Your task to perform on an android device: What's the weather today? Image 0: 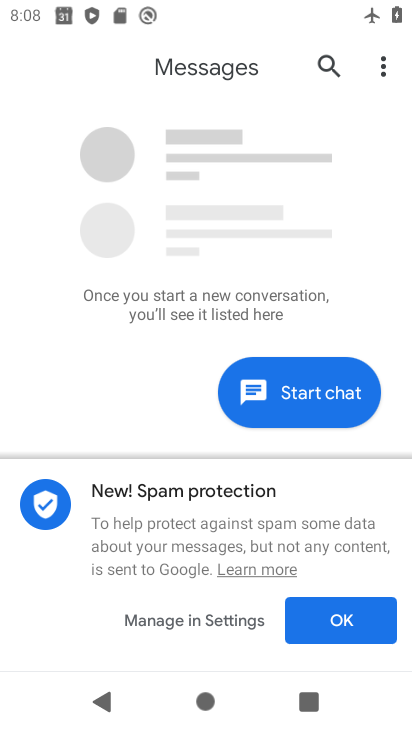
Step 0: press home button
Your task to perform on an android device: What's the weather today? Image 1: 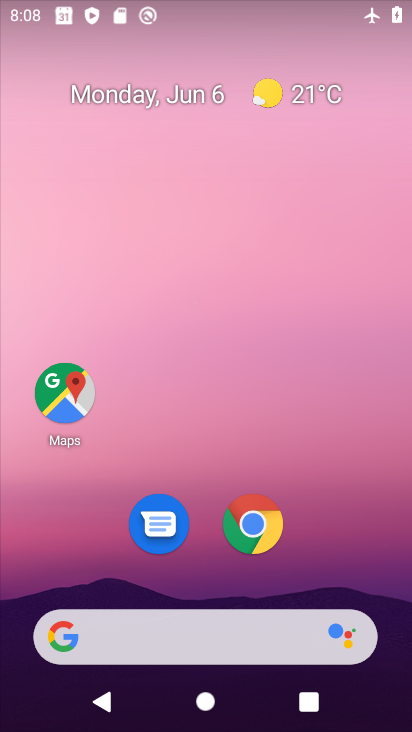
Step 1: click (266, 92)
Your task to perform on an android device: What's the weather today? Image 2: 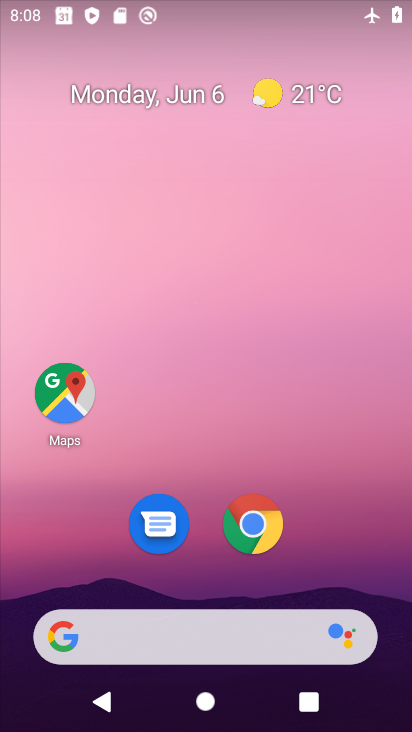
Step 2: click (266, 93)
Your task to perform on an android device: What's the weather today? Image 3: 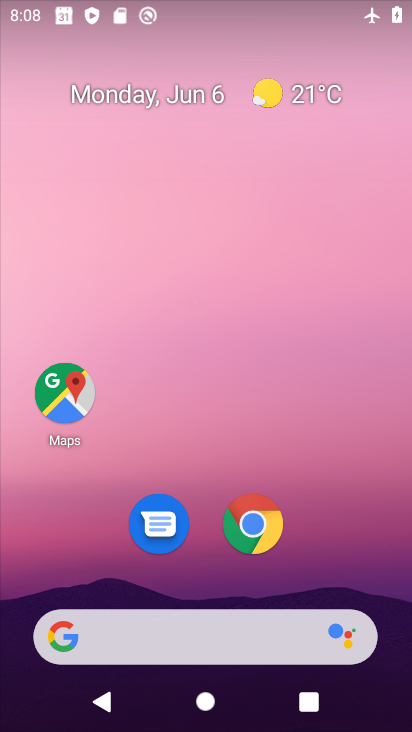
Step 3: click (266, 92)
Your task to perform on an android device: What's the weather today? Image 4: 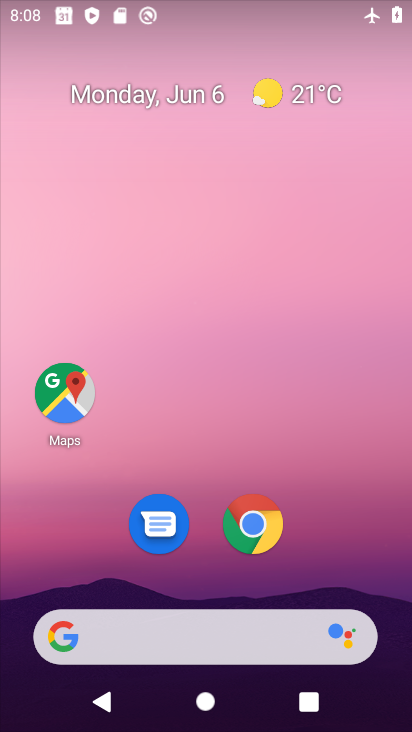
Step 4: click (266, 93)
Your task to perform on an android device: What's the weather today? Image 5: 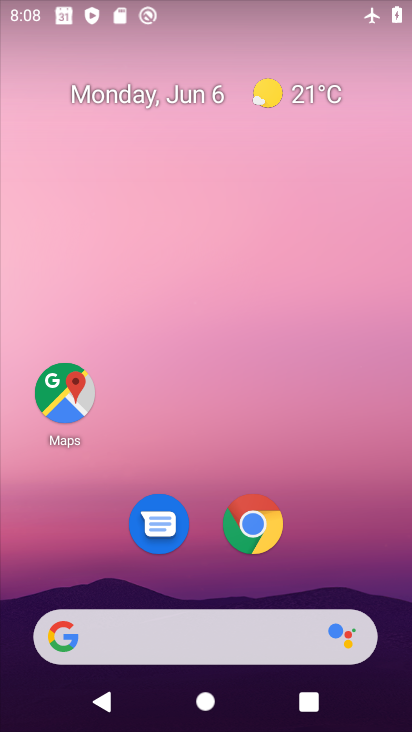
Step 5: click (198, 631)
Your task to perform on an android device: What's the weather today? Image 6: 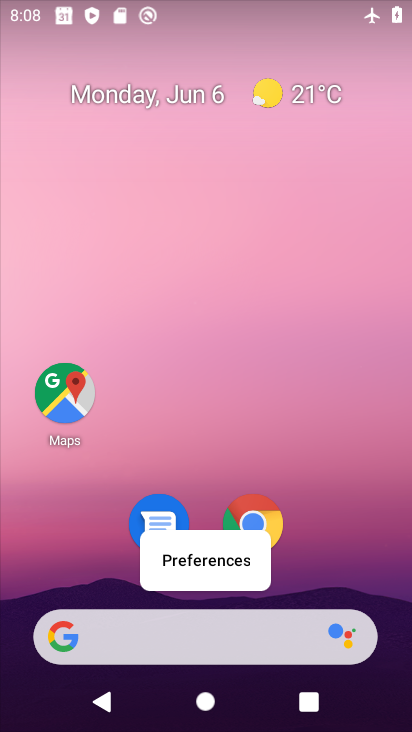
Step 6: click (187, 639)
Your task to perform on an android device: What's the weather today? Image 7: 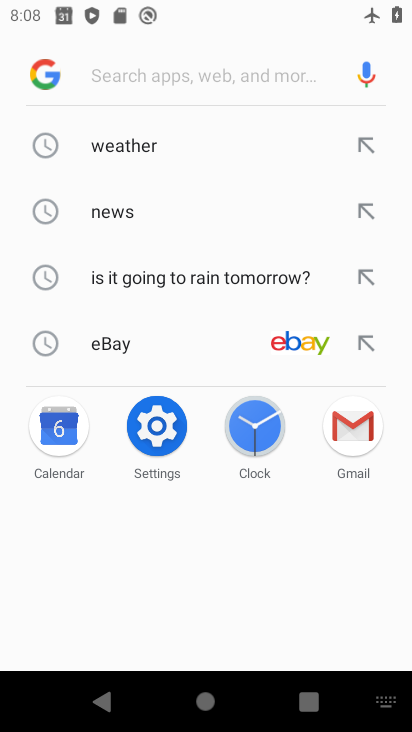
Step 7: click (124, 143)
Your task to perform on an android device: What's the weather today? Image 8: 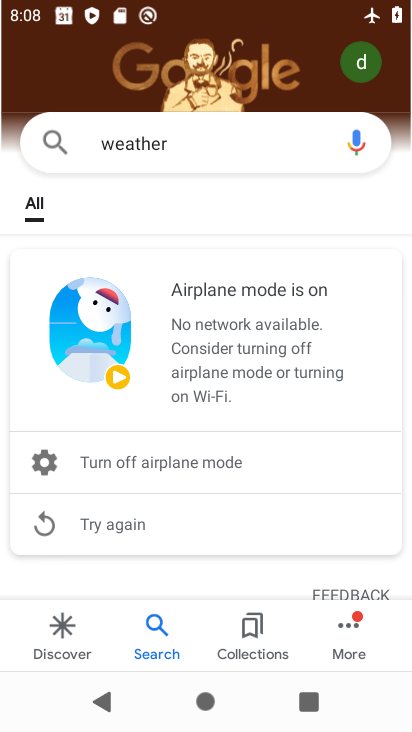
Step 8: task complete